Your task to perform on an android device: Is it going to rain tomorrow? Image 0: 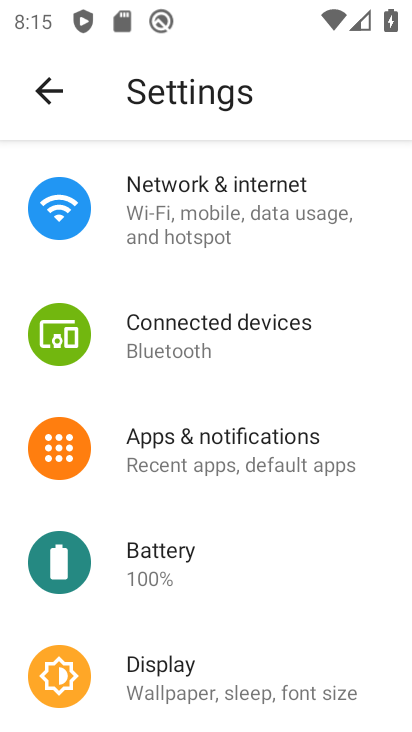
Step 0: press home button
Your task to perform on an android device: Is it going to rain tomorrow? Image 1: 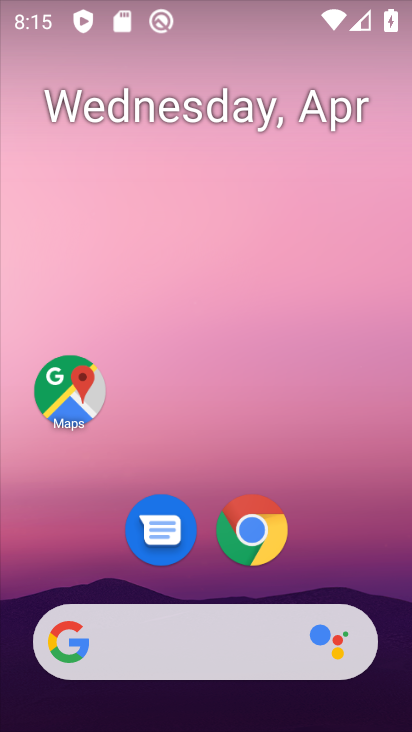
Step 1: click (258, 532)
Your task to perform on an android device: Is it going to rain tomorrow? Image 2: 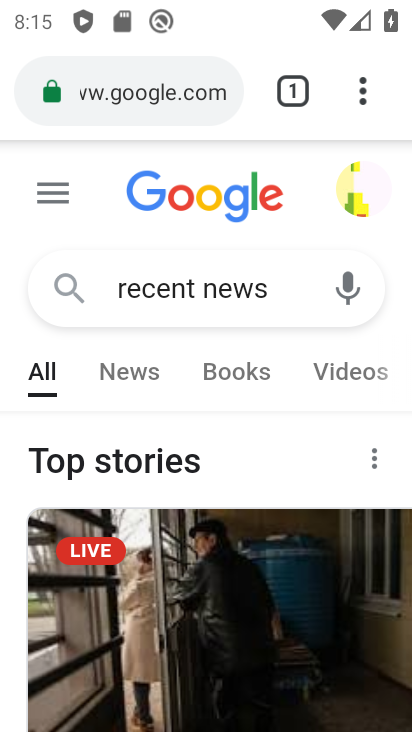
Step 2: click (275, 279)
Your task to perform on an android device: Is it going to rain tomorrow? Image 3: 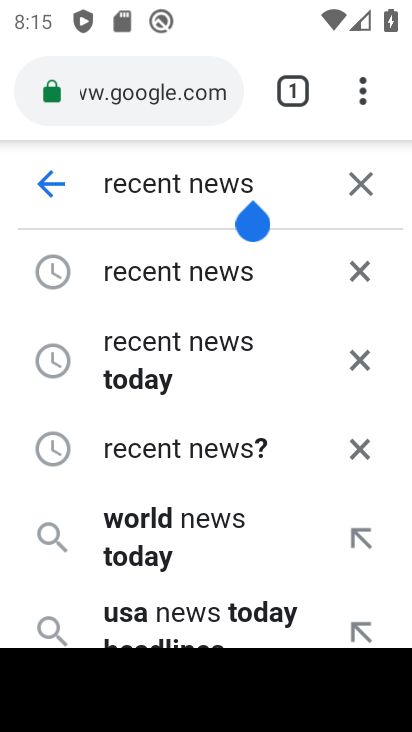
Step 3: click (363, 196)
Your task to perform on an android device: Is it going to rain tomorrow? Image 4: 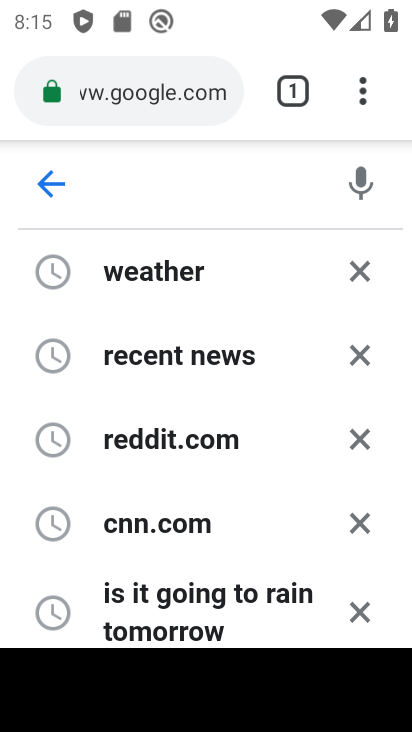
Step 4: type "Is it going to rain tomorrow?"
Your task to perform on an android device: Is it going to rain tomorrow? Image 5: 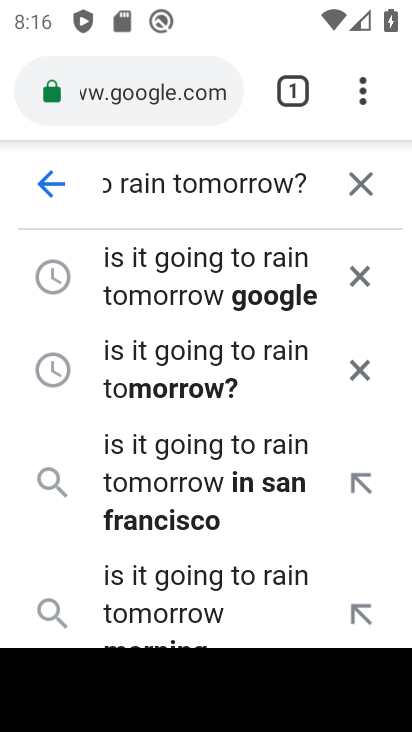
Step 5: click (289, 293)
Your task to perform on an android device: Is it going to rain tomorrow? Image 6: 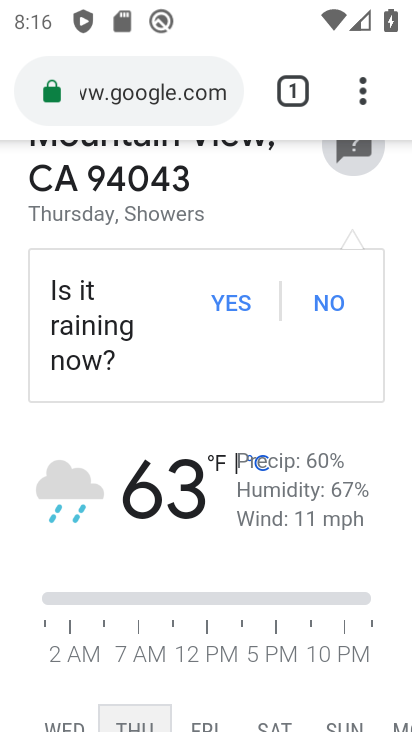
Step 6: task complete